Your task to perform on an android device: Open settings on Google Maps Image 0: 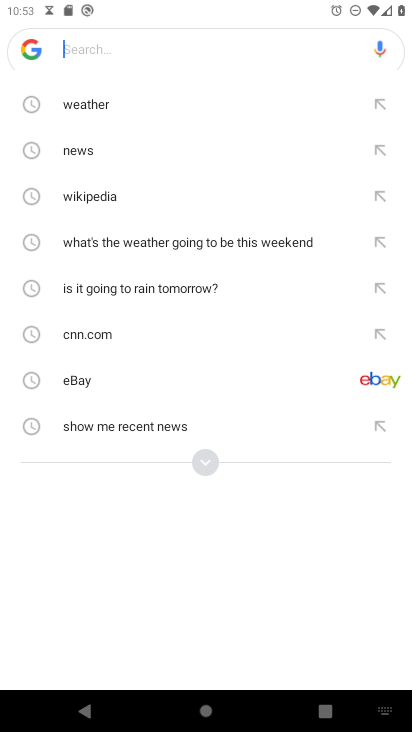
Step 0: press back button
Your task to perform on an android device: Open settings on Google Maps Image 1: 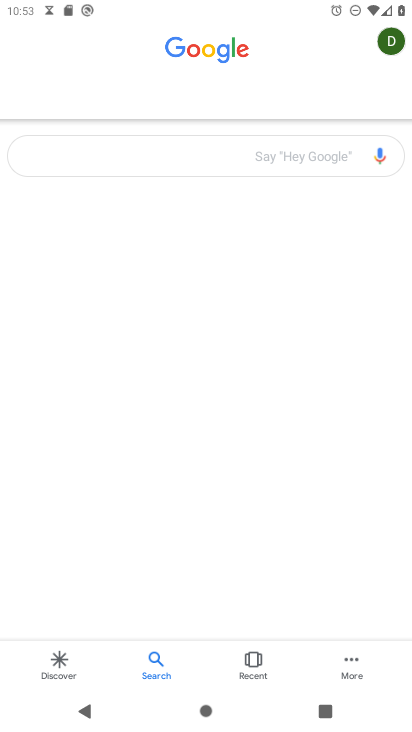
Step 1: press back button
Your task to perform on an android device: Open settings on Google Maps Image 2: 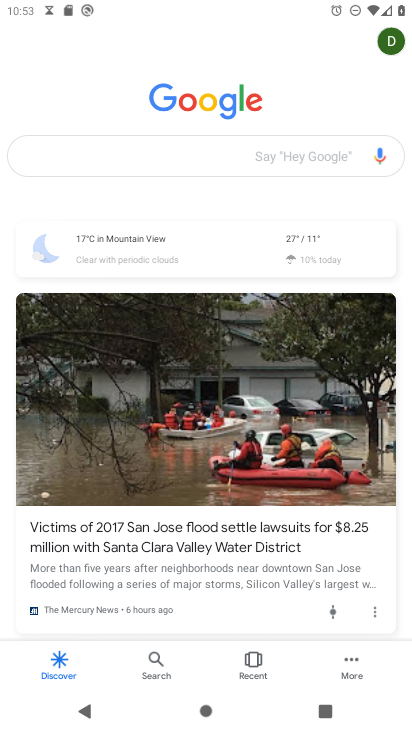
Step 2: press back button
Your task to perform on an android device: Open settings on Google Maps Image 3: 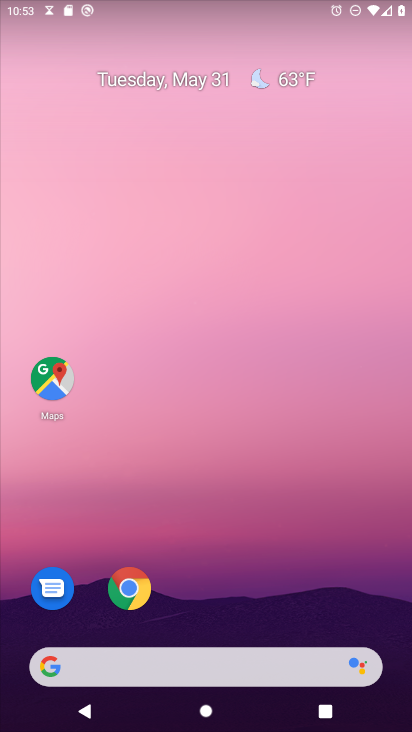
Step 3: click (50, 378)
Your task to perform on an android device: Open settings on Google Maps Image 4: 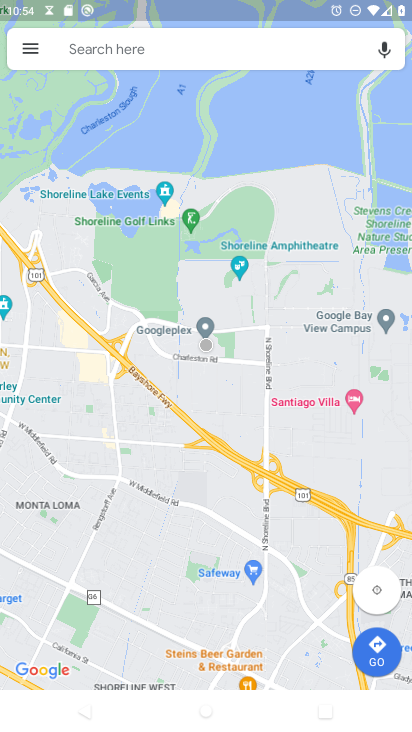
Step 4: task complete